Your task to perform on an android device: Do I have any events tomorrow? Image 0: 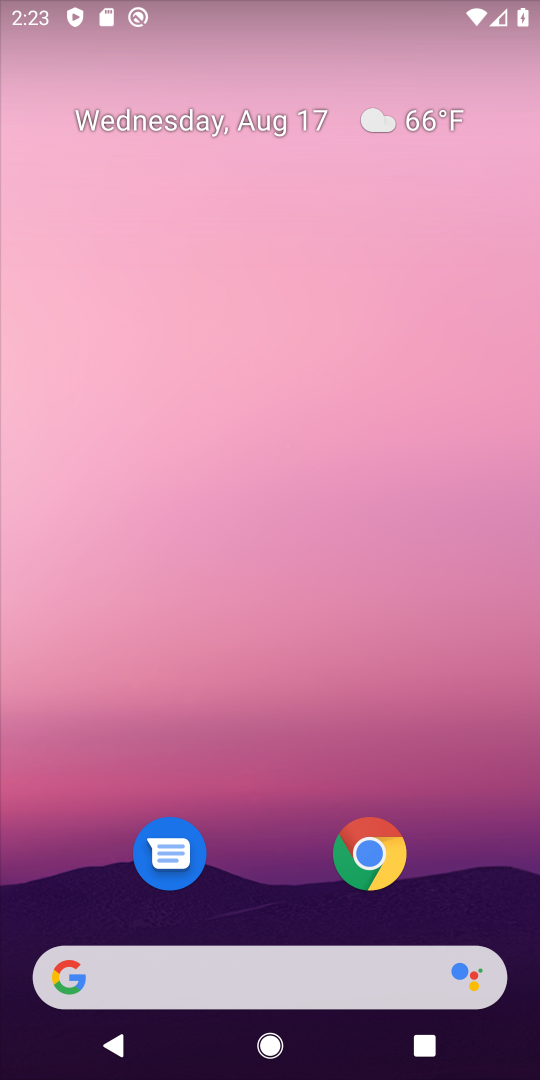
Step 0: drag from (286, 749) to (303, 172)
Your task to perform on an android device: Do I have any events tomorrow? Image 1: 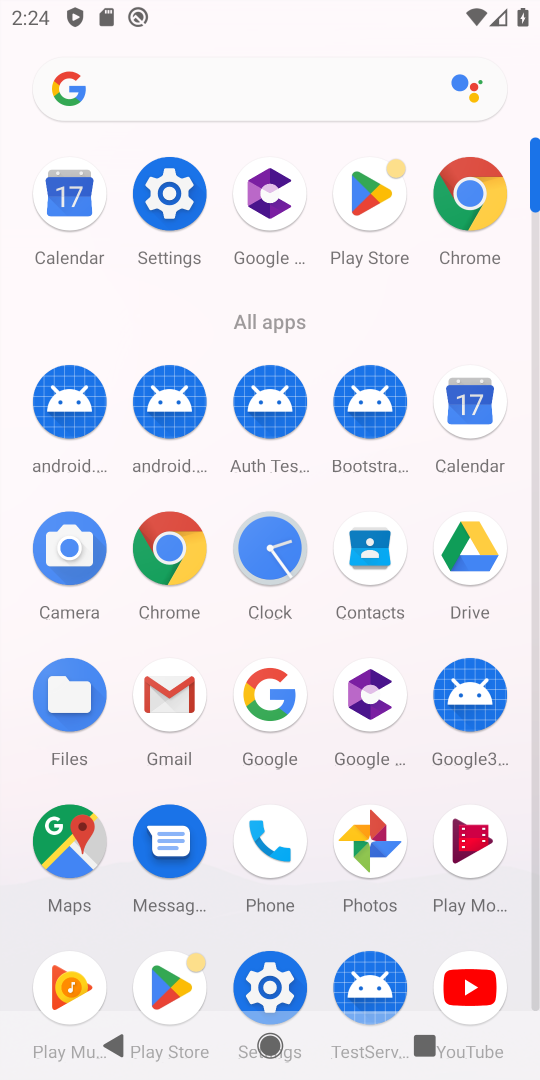
Step 1: click (168, 531)
Your task to perform on an android device: Do I have any events tomorrow? Image 2: 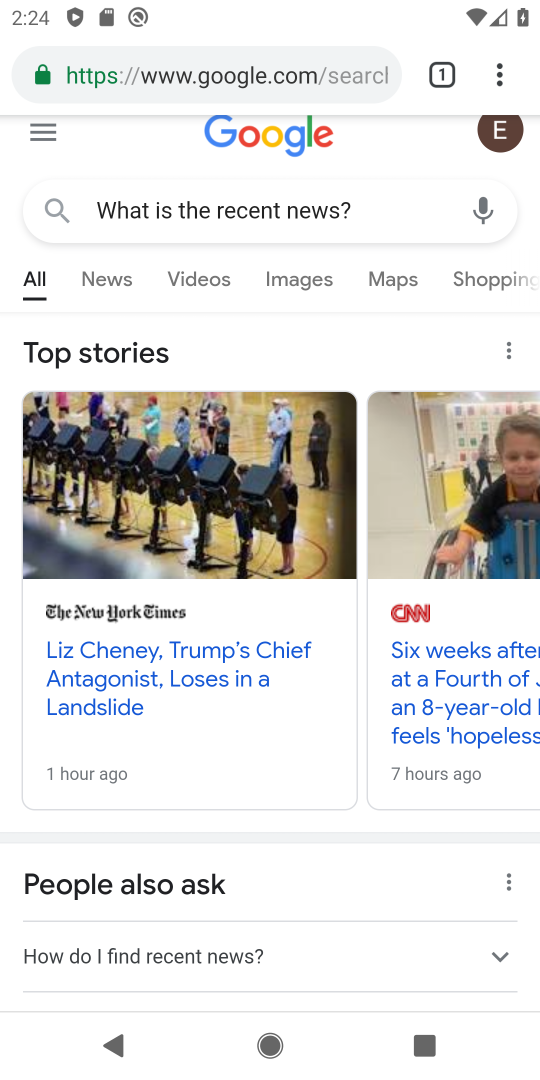
Step 2: press home button
Your task to perform on an android device: Do I have any events tomorrow? Image 3: 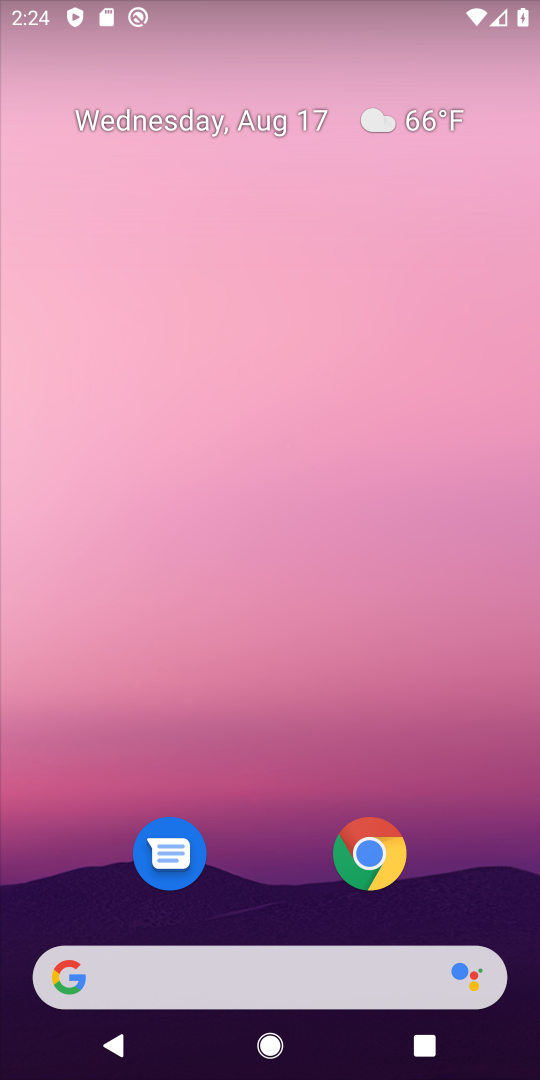
Step 3: drag from (307, 794) to (346, 133)
Your task to perform on an android device: Do I have any events tomorrow? Image 4: 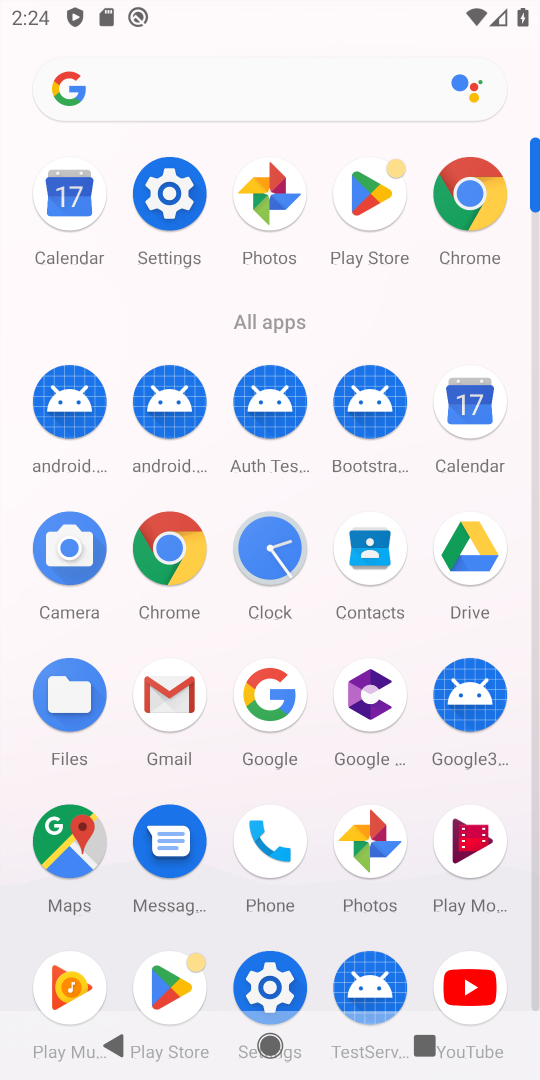
Step 4: click (470, 393)
Your task to perform on an android device: Do I have any events tomorrow? Image 5: 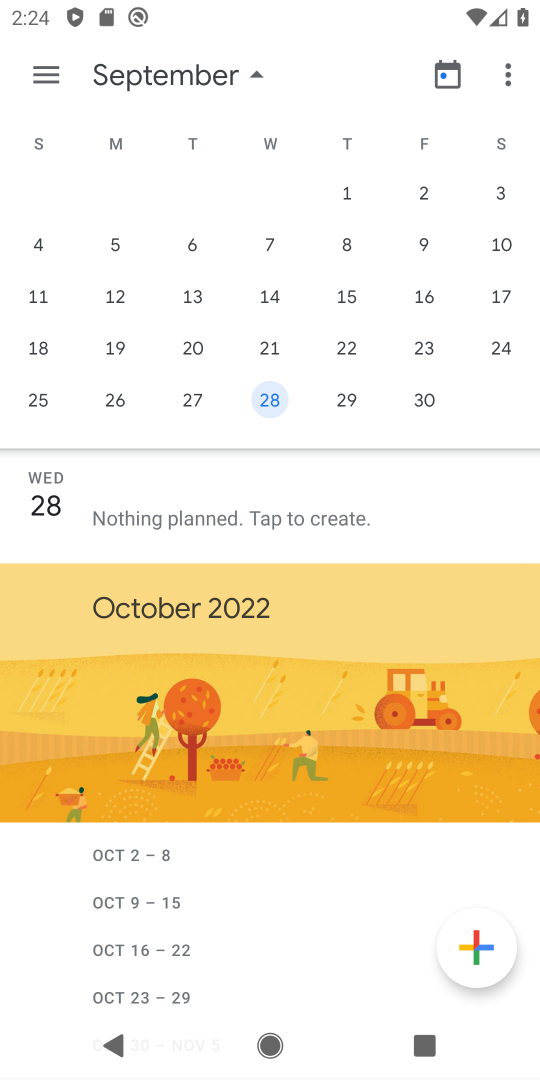
Step 5: drag from (123, 263) to (490, 339)
Your task to perform on an android device: Do I have any events tomorrow? Image 6: 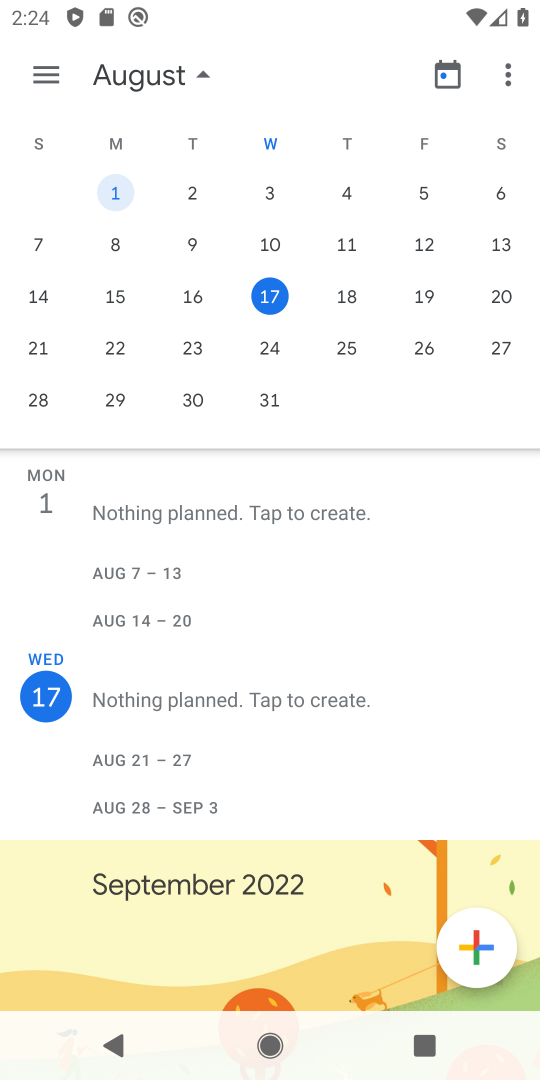
Step 6: click (345, 300)
Your task to perform on an android device: Do I have any events tomorrow? Image 7: 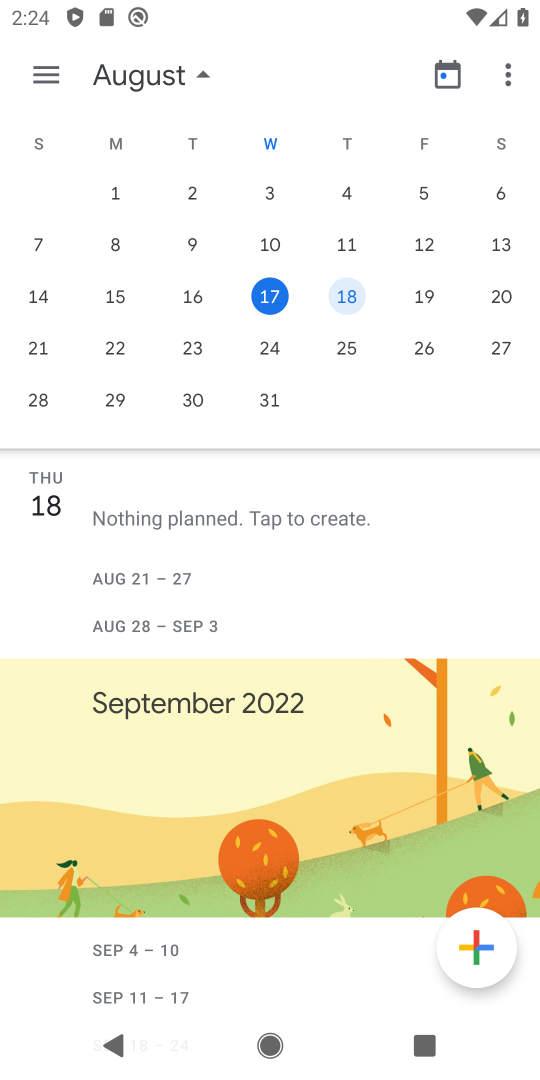
Step 7: task complete